Your task to perform on an android device: toggle notifications settings in the gmail app Image 0: 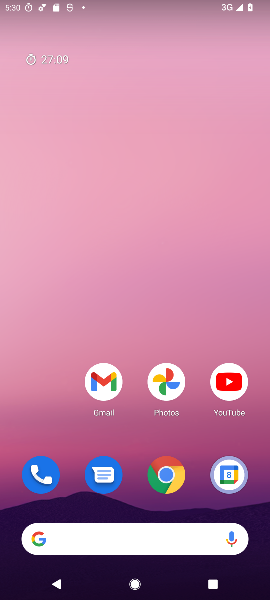
Step 0: press home button
Your task to perform on an android device: toggle notifications settings in the gmail app Image 1: 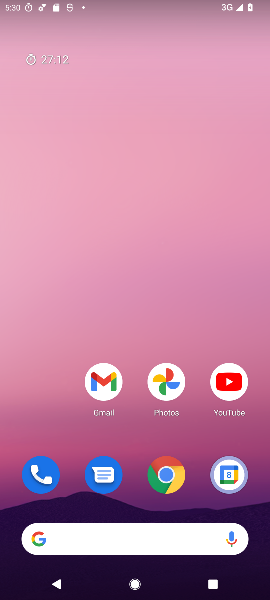
Step 1: drag from (69, 427) to (61, 168)
Your task to perform on an android device: toggle notifications settings in the gmail app Image 2: 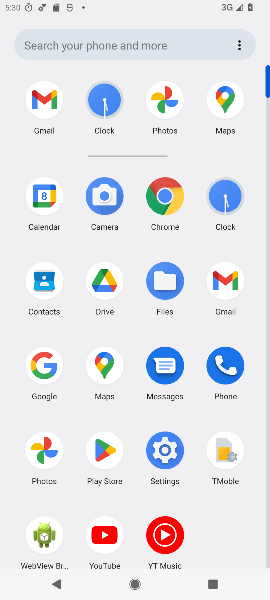
Step 2: click (224, 289)
Your task to perform on an android device: toggle notifications settings in the gmail app Image 3: 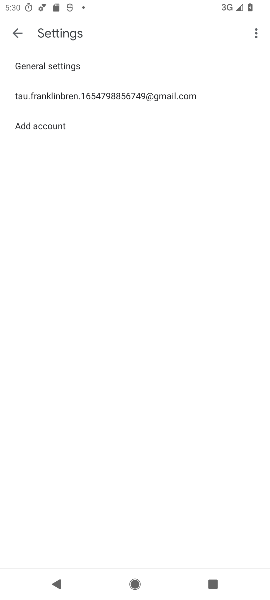
Step 3: click (114, 96)
Your task to perform on an android device: toggle notifications settings in the gmail app Image 4: 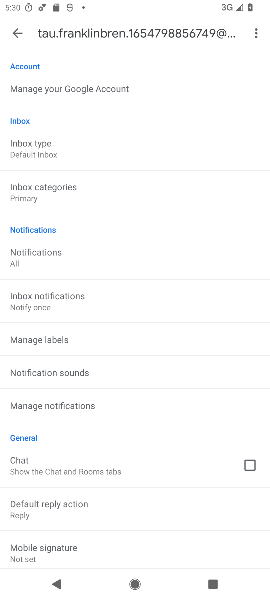
Step 4: drag from (189, 346) to (195, 279)
Your task to perform on an android device: toggle notifications settings in the gmail app Image 5: 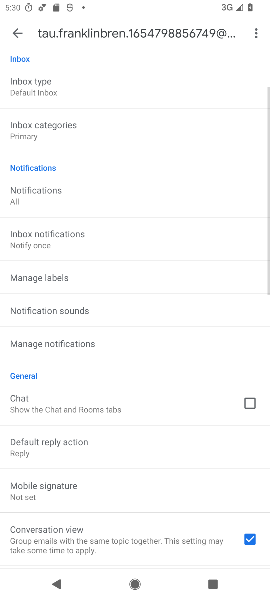
Step 5: drag from (189, 360) to (195, 286)
Your task to perform on an android device: toggle notifications settings in the gmail app Image 6: 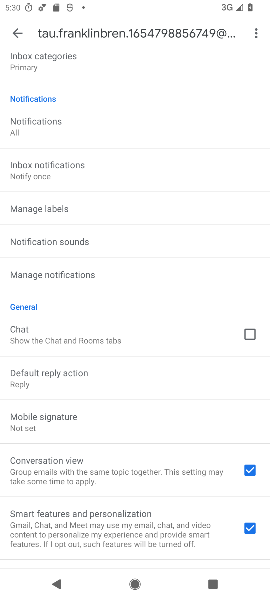
Step 6: drag from (192, 370) to (199, 300)
Your task to perform on an android device: toggle notifications settings in the gmail app Image 7: 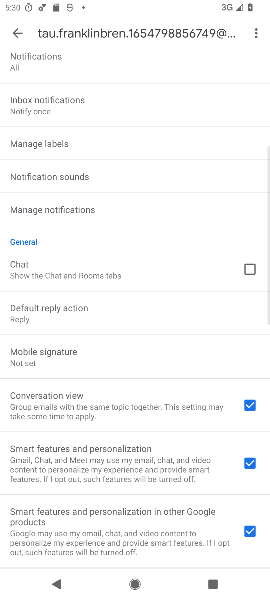
Step 7: drag from (185, 365) to (190, 253)
Your task to perform on an android device: toggle notifications settings in the gmail app Image 8: 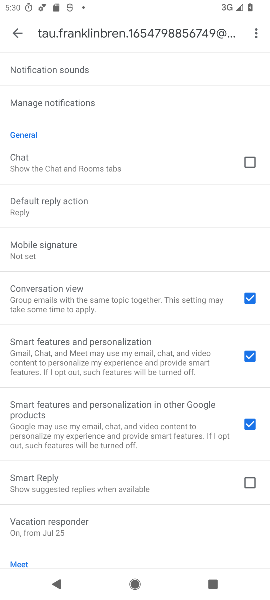
Step 8: drag from (187, 362) to (183, 279)
Your task to perform on an android device: toggle notifications settings in the gmail app Image 9: 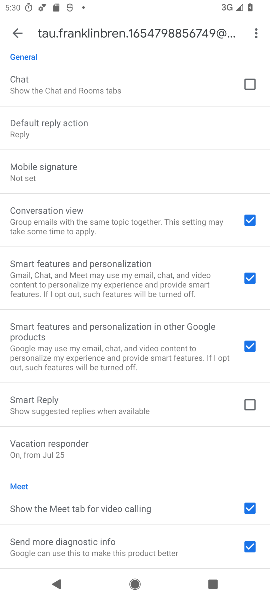
Step 9: drag from (190, 401) to (186, 286)
Your task to perform on an android device: toggle notifications settings in the gmail app Image 10: 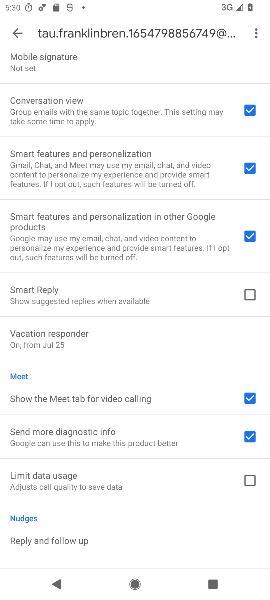
Step 10: drag from (191, 401) to (200, 286)
Your task to perform on an android device: toggle notifications settings in the gmail app Image 11: 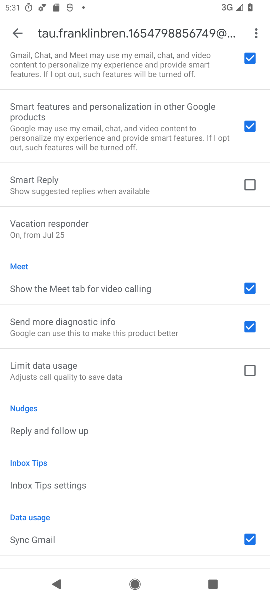
Step 11: drag from (199, 395) to (205, 265)
Your task to perform on an android device: toggle notifications settings in the gmail app Image 12: 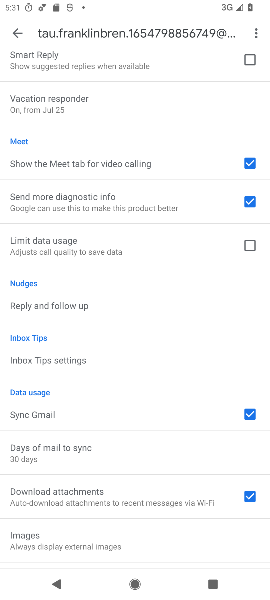
Step 12: drag from (200, 158) to (202, 239)
Your task to perform on an android device: toggle notifications settings in the gmail app Image 13: 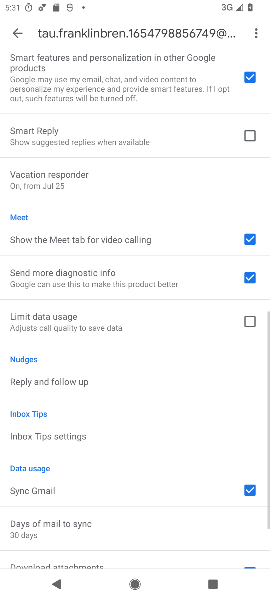
Step 13: drag from (199, 118) to (200, 209)
Your task to perform on an android device: toggle notifications settings in the gmail app Image 14: 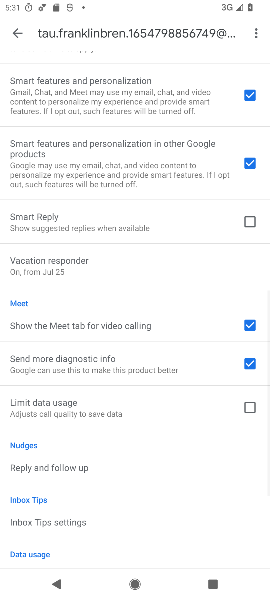
Step 14: drag from (200, 80) to (199, 201)
Your task to perform on an android device: toggle notifications settings in the gmail app Image 15: 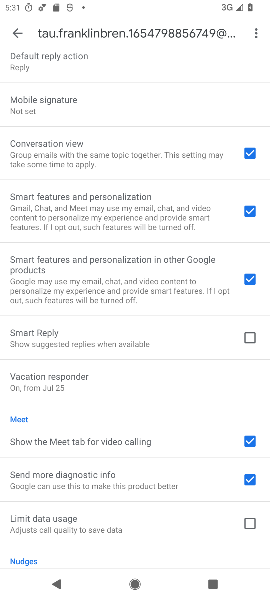
Step 15: drag from (180, 82) to (181, 143)
Your task to perform on an android device: toggle notifications settings in the gmail app Image 16: 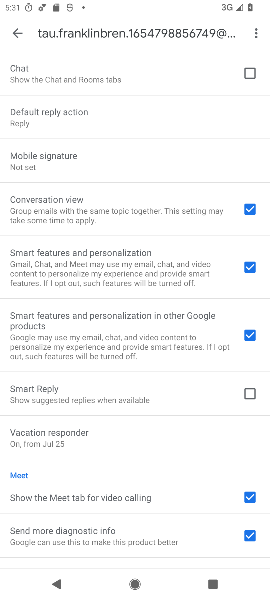
Step 16: drag from (176, 67) to (182, 184)
Your task to perform on an android device: toggle notifications settings in the gmail app Image 17: 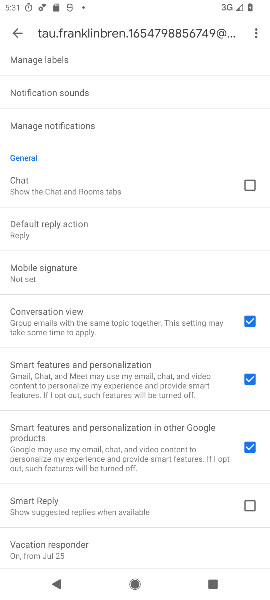
Step 17: drag from (165, 79) to (167, 189)
Your task to perform on an android device: toggle notifications settings in the gmail app Image 18: 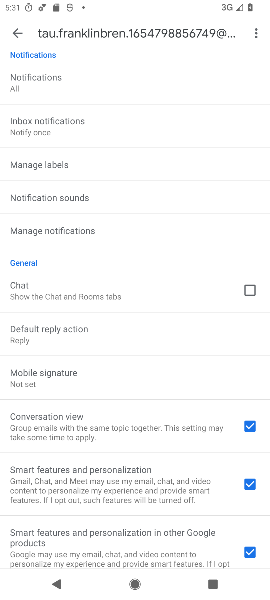
Step 18: click (148, 234)
Your task to perform on an android device: toggle notifications settings in the gmail app Image 19: 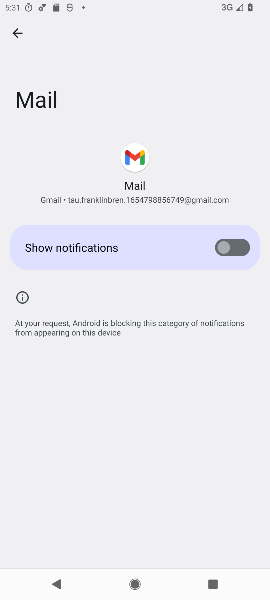
Step 19: click (221, 244)
Your task to perform on an android device: toggle notifications settings in the gmail app Image 20: 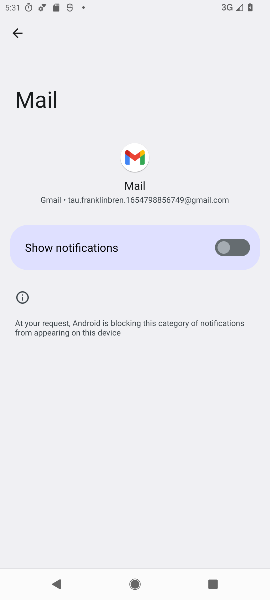
Step 20: click (229, 247)
Your task to perform on an android device: toggle notifications settings in the gmail app Image 21: 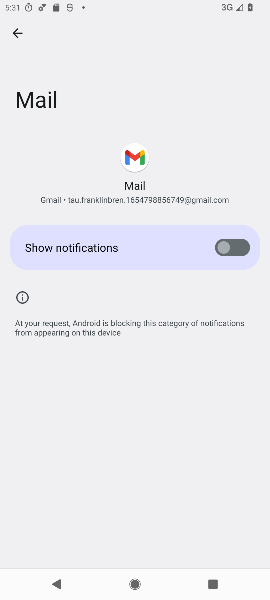
Step 21: task complete